Your task to perform on an android device: turn off airplane mode Image 0: 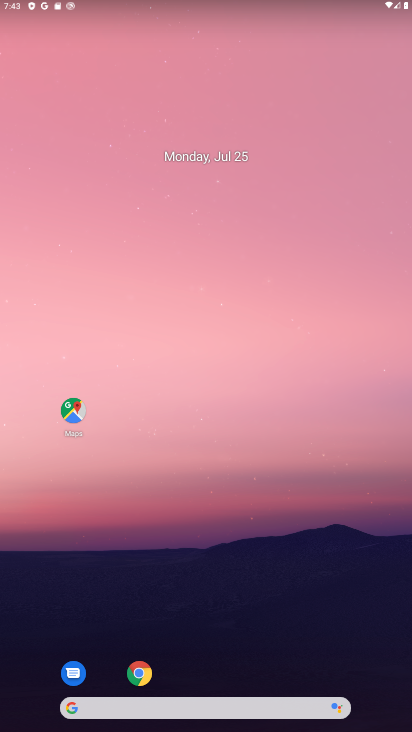
Step 0: drag from (293, 660) to (225, 138)
Your task to perform on an android device: turn off airplane mode Image 1: 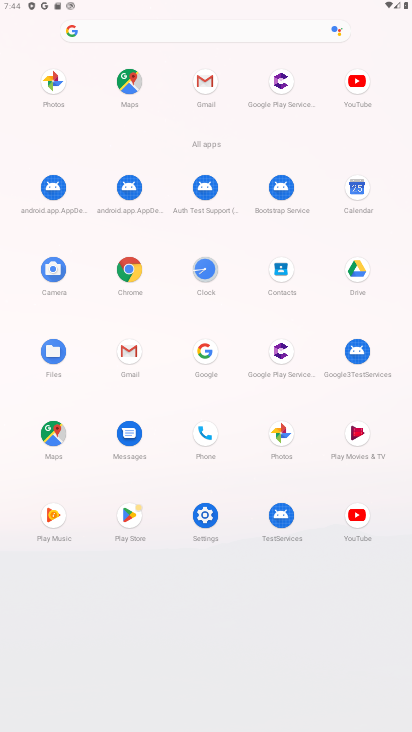
Step 1: click (193, 511)
Your task to perform on an android device: turn off airplane mode Image 2: 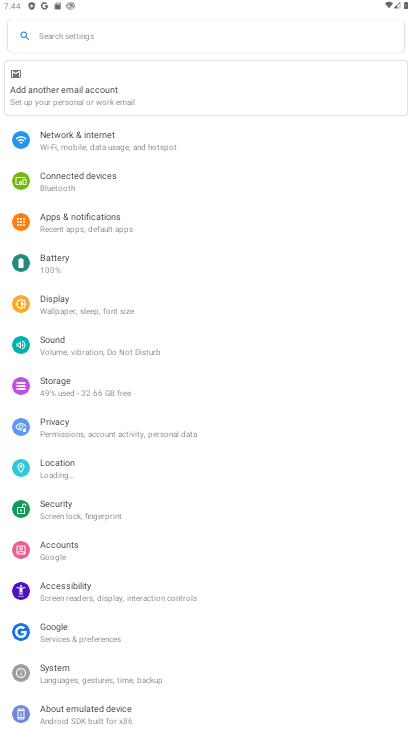
Step 2: task complete